Your task to perform on an android device: check battery use Image 0: 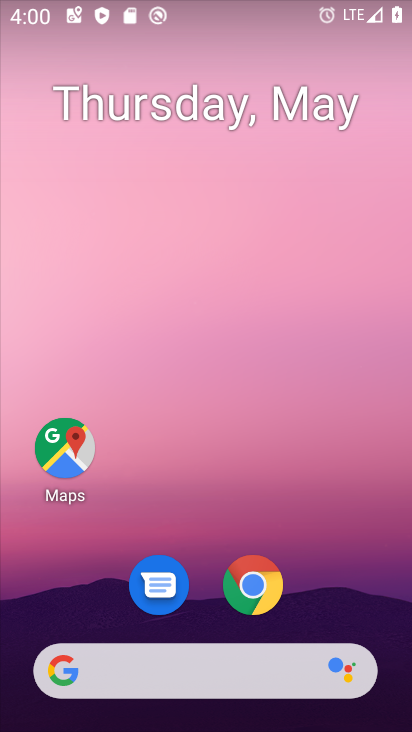
Step 0: drag from (334, 528) to (329, 74)
Your task to perform on an android device: check battery use Image 1: 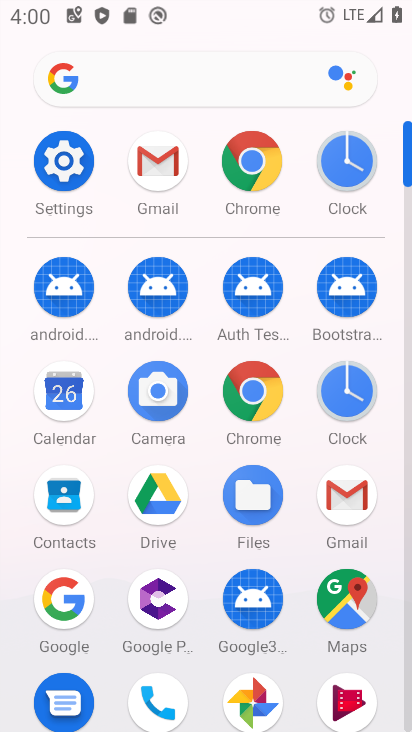
Step 1: click (72, 162)
Your task to perform on an android device: check battery use Image 2: 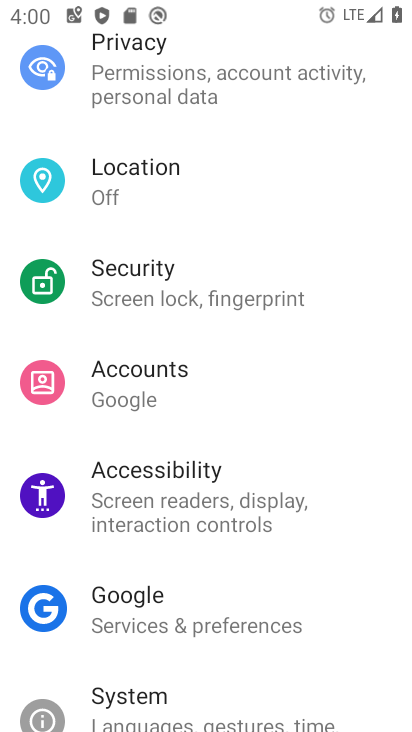
Step 2: drag from (254, 216) to (296, 686)
Your task to perform on an android device: check battery use Image 3: 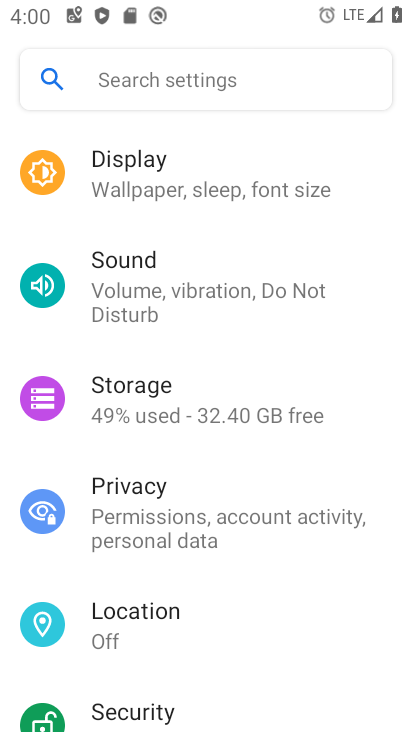
Step 3: drag from (228, 236) to (221, 554)
Your task to perform on an android device: check battery use Image 4: 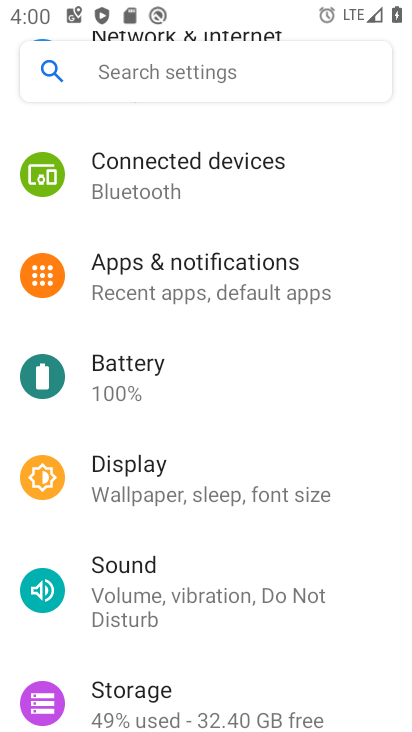
Step 4: click (179, 378)
Your task to perform on an android device: check battery use Image 5: 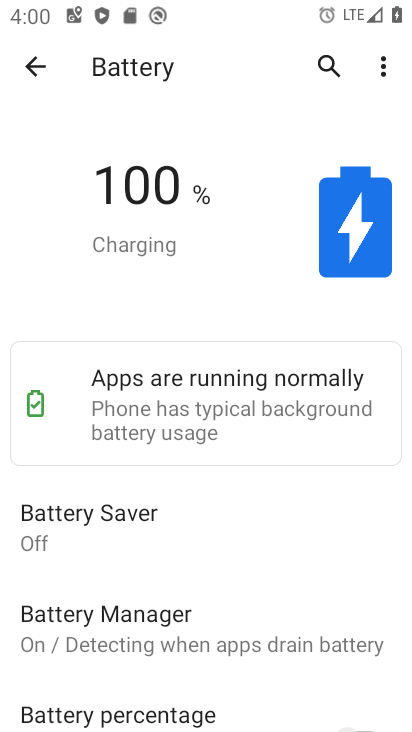
Step 5: task complete